Your task to perform on an android device: Go to Yahoo.com Image 0: 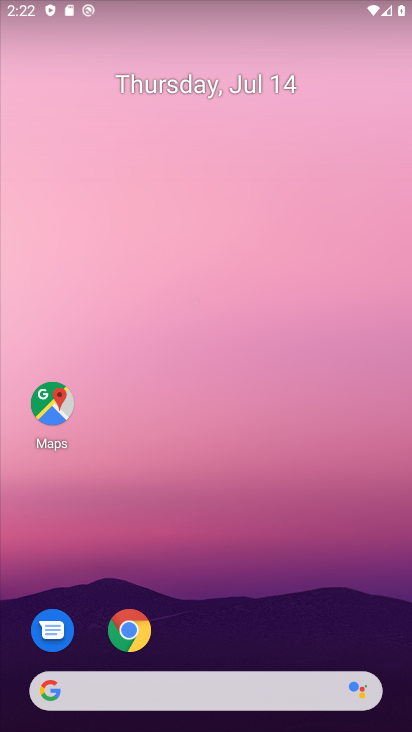
Step 0: press home button
Your task to perform on an android device: Go to Yahoo.com Image 1: 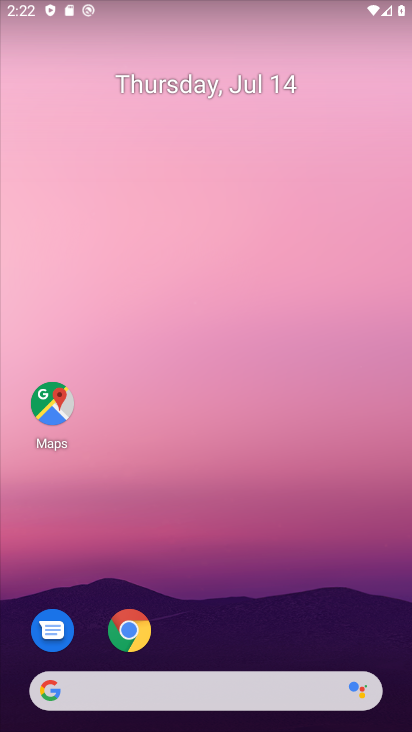
Step 1: click (128, 624)
Your task to perform on an android device: Go to Yahoo.com Image 2: 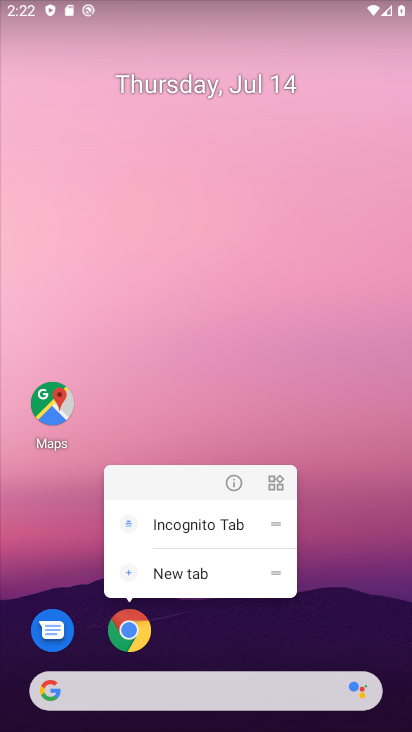
Step 2: click (128, 624)
Your task to perform on an android device: Go to Yahoo.com Image 3: 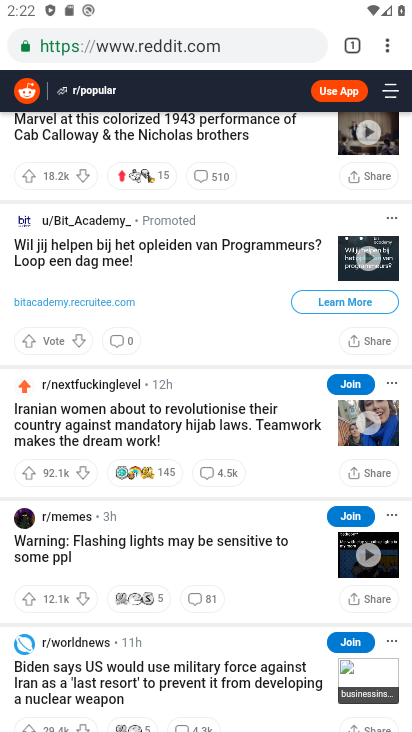
Step 3: click (355, 42)
Your task to perform on an android device: Go to Yahoo.com Image 4: 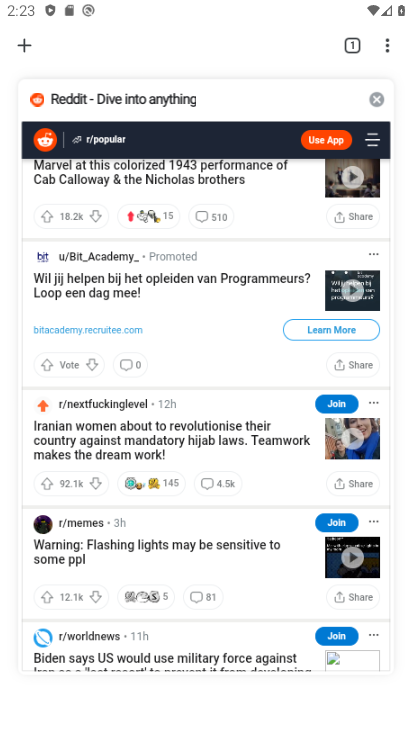
Step 4: click (20, 43)
Your task to perform on an android device: Go to Yahoo.com Image 5: 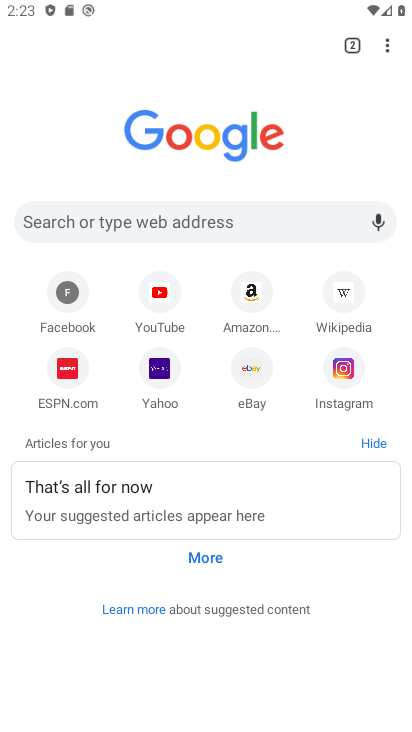
Step 5: click (158, 367)
Your task to perform on an android device: Go to Yahoo.com Image 6: 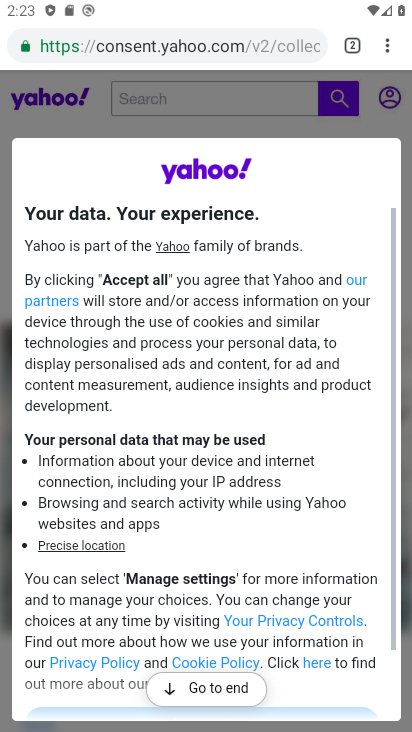
Step 6: task complete